Your task to perform on an android device: toggle airplane mode Image 0: 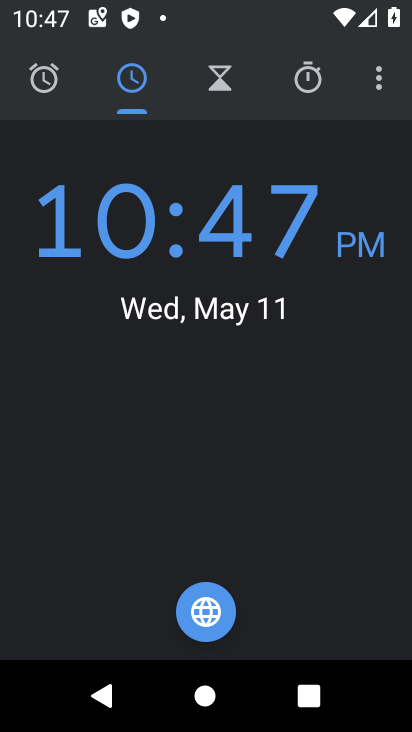
Step 0: drag from (367, 10) to (355, 549)
Your task to perform on an android device: toggle airplane mode Image 1: 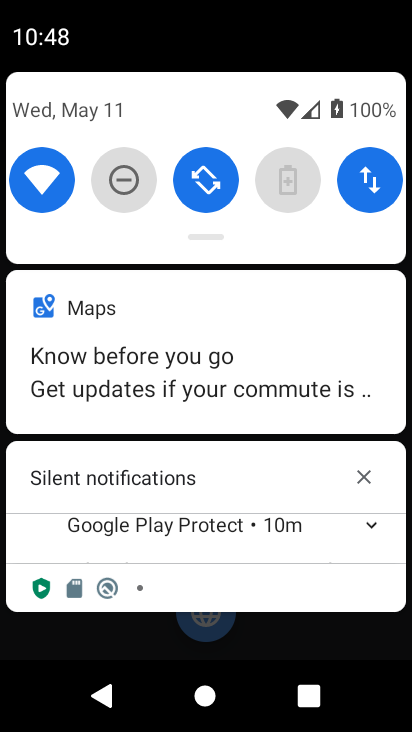
Step 1: drag from (323, 233) to (316, 490)
Your task to perform on an android device: toggle airplane mode Image 2: 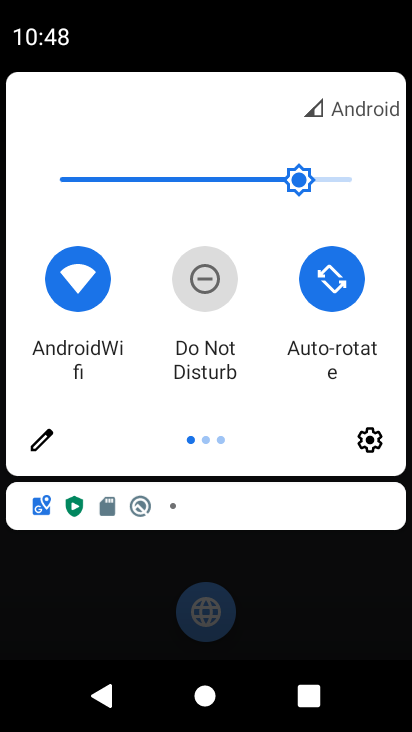
Step 2: drag from (279, 288) to (0, 271)
Your task to perform on an android device: toggle airplane mode Image 3: 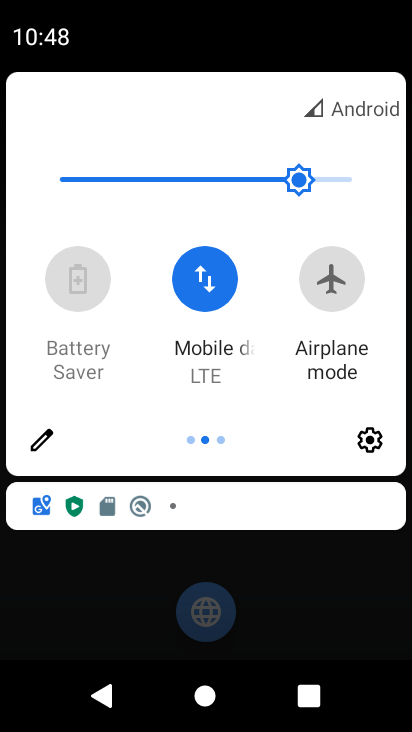
Step 3: click (329, 292)
Your task to perform on an android device: toggle airplane mode Image 4: 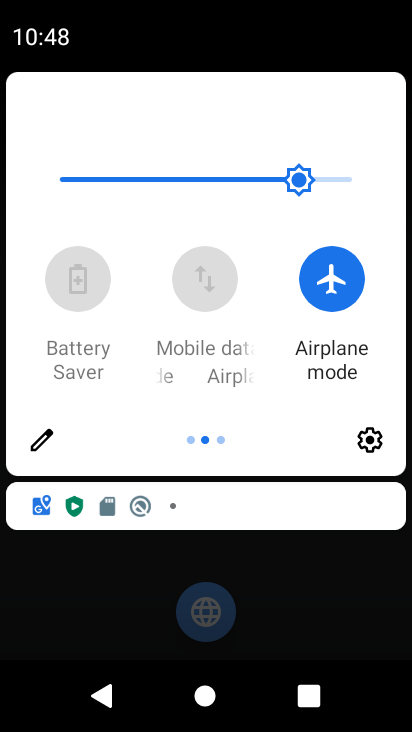
Step 4: task complete